Your task to perform on an android device: Go to CNN.com Image 0: 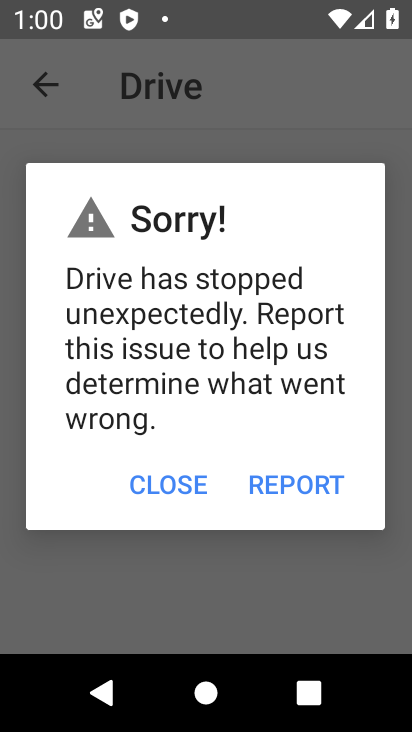
Step 0: press home button
Your task to perform on an android device: Go to CNN.com Image 1: 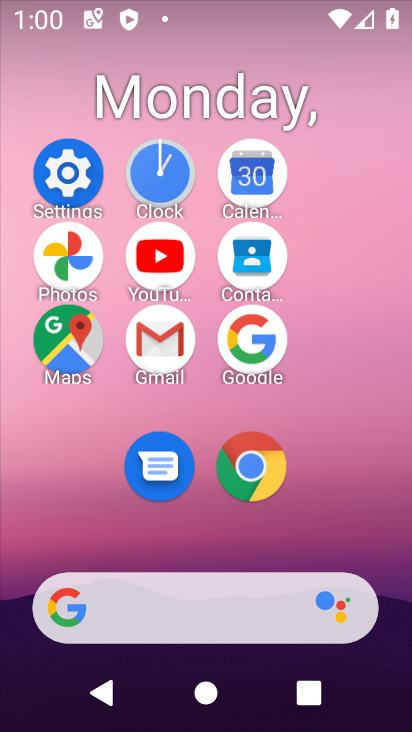
Step 1: click (258, 456)
Your task to perform on an android device: Go to CNN.com Image 2: 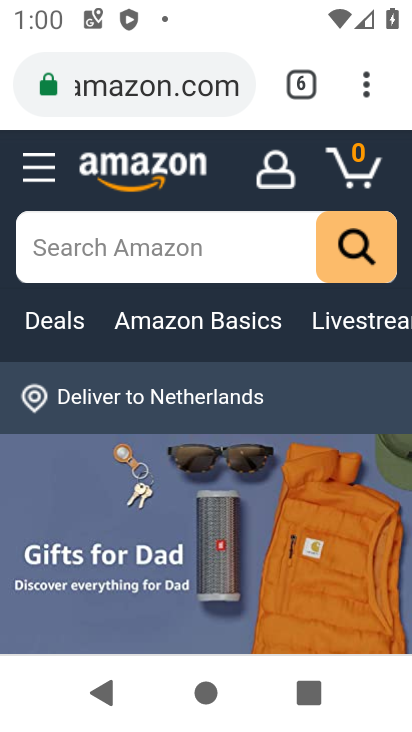
Step 2: click (304, 72)
Your task to perform on an android device: Go to CNN.com Image 3: 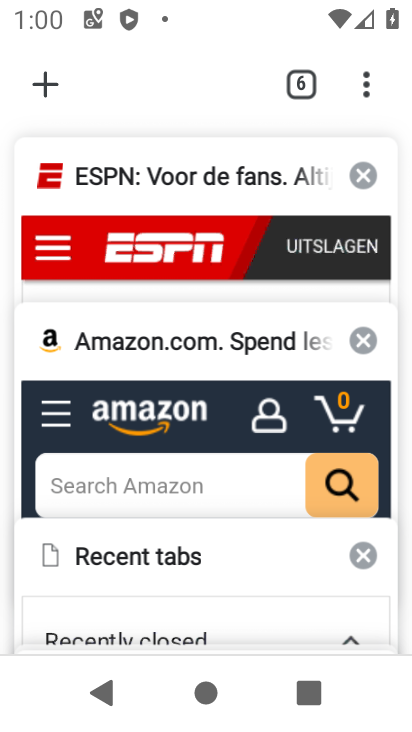
Step 3: drag from (207, 161) to (215, 590)
Your task to perform on an android device: Go to CNN.com Image 4: 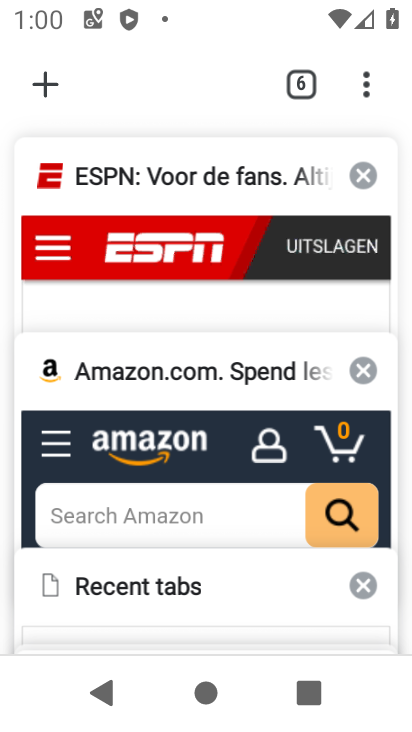
Step 4: click (50, 103)
Your task to perform on an android device: Go to CNN.com Image 5: 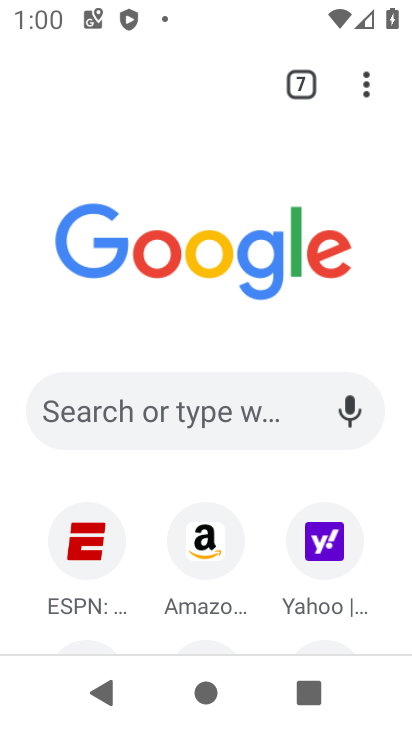
Step 5: click (207, 410)
Your task to perform on an android device: Go to CNN.com Image 6: 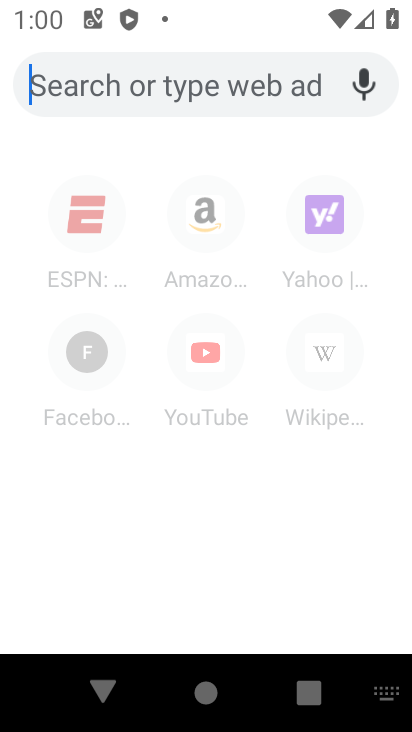
Step 6: type "cnn"
Your task to perform on an android device: Go to CNN.com Image 7: 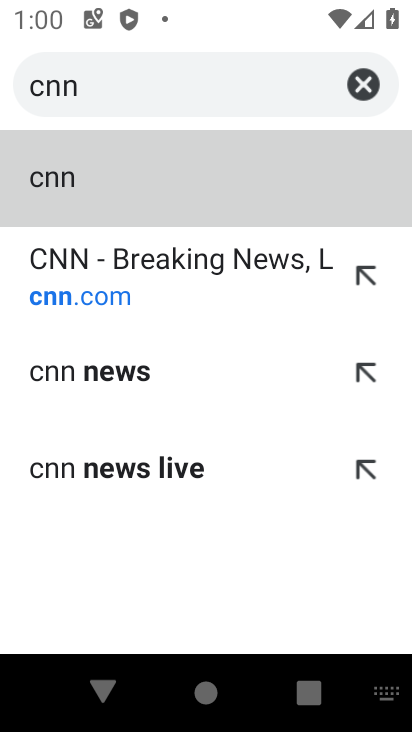
Step 7: click (112, 311)
Your task to perform on an android device: Go to CNN.com Image 8: 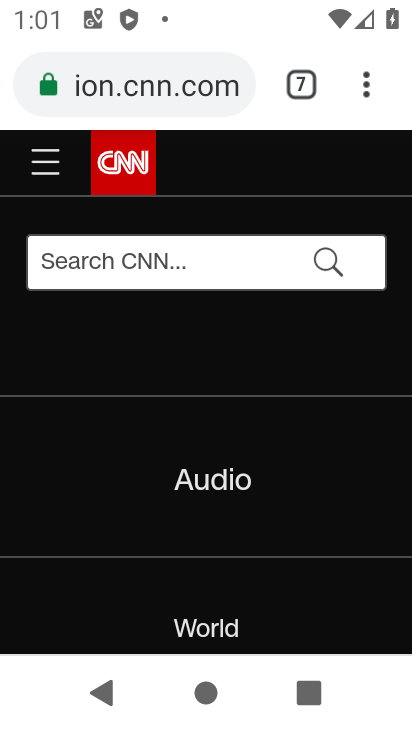
Step 8: task complete